Your task to perform on an android device: What's the weather today? Image 0: 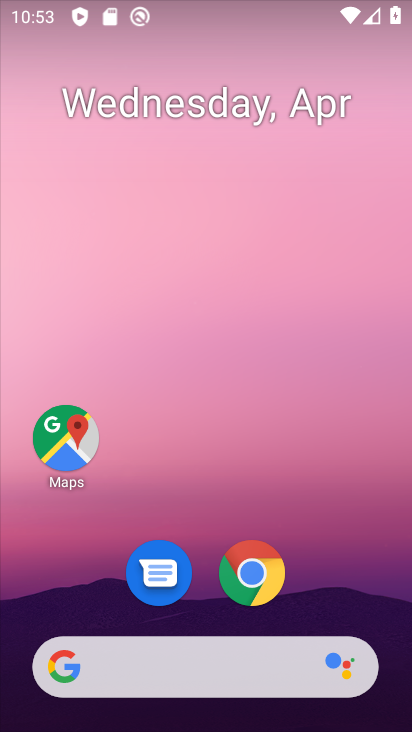
Step 0: drag from (53, 222) to (409, 290)
Your task to perform on an android device: What's the weather today? Image 1: 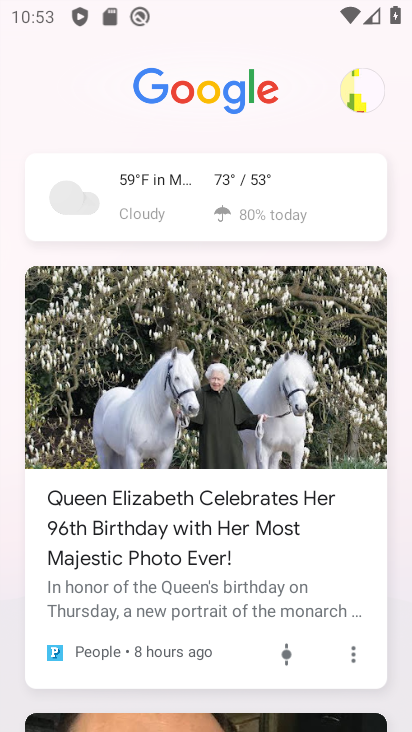
Step 1: click (248, 187)
Your task to perform on an android device: What's the weather today? Image 2: 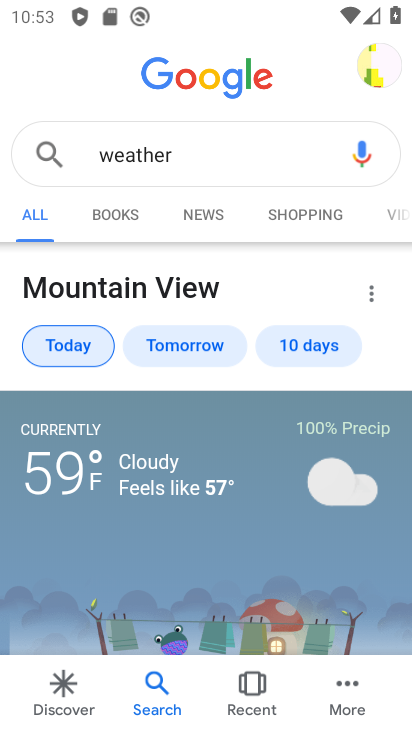
Step 2: task complete